Your task to perform on an android device: Show me popular videos on Youtube Image 0: 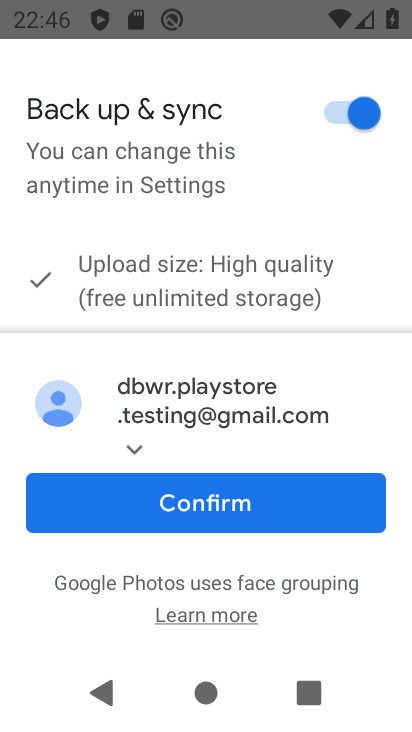
Step 0: press home button
Your task to perform on an android device: Show me popular videos on Youtube Image 1: 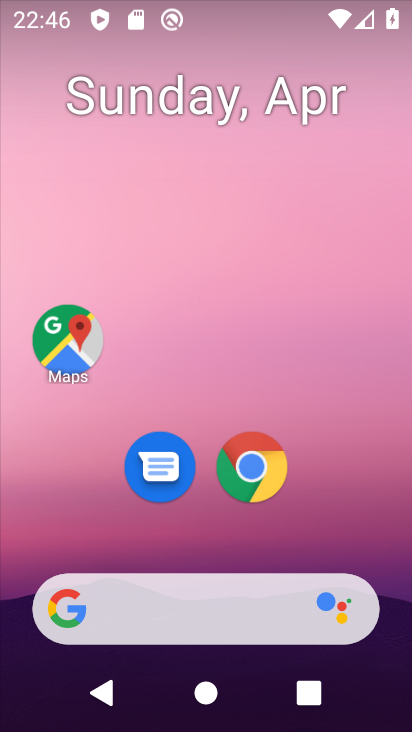
Step 1: drag from (359, 370) to (226, 370)
Your task to perform on an android device: Show me popular videos on Youtube Image 2: 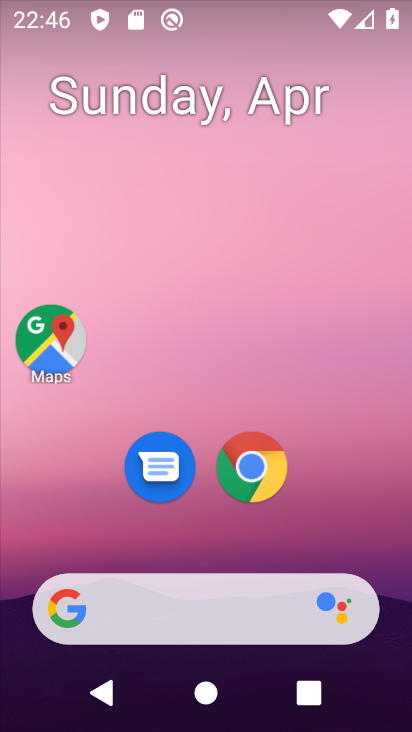
Step 2: drag from (199, 559) to (225, 96)
Your task to perform on an android device: Show me popular videos on Youtube Image 3: 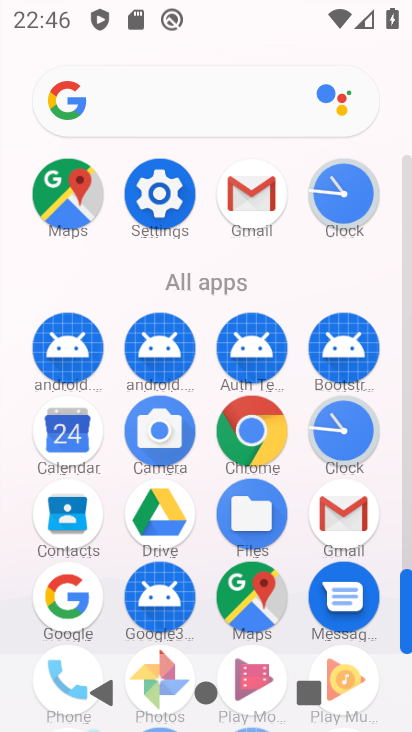
Step 3: drag from (211, 620) to (221, 250)
Your task to perform on an android device: Show me popular videos on Youtube Image 4: 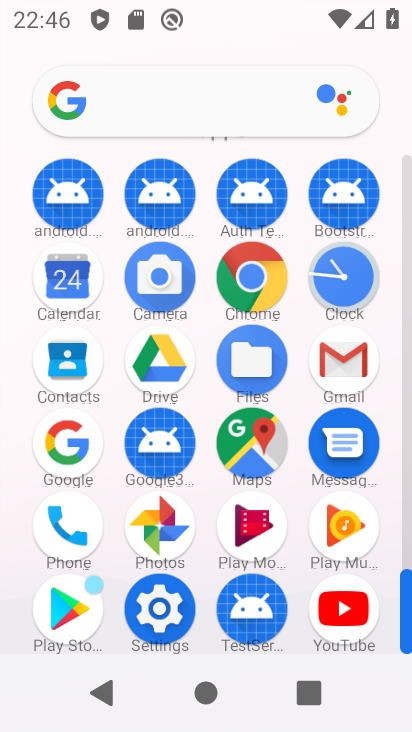
Step 4: click (345, 600)
Your task to perform on an android device: Show me popular videos on Youtube Image 5: 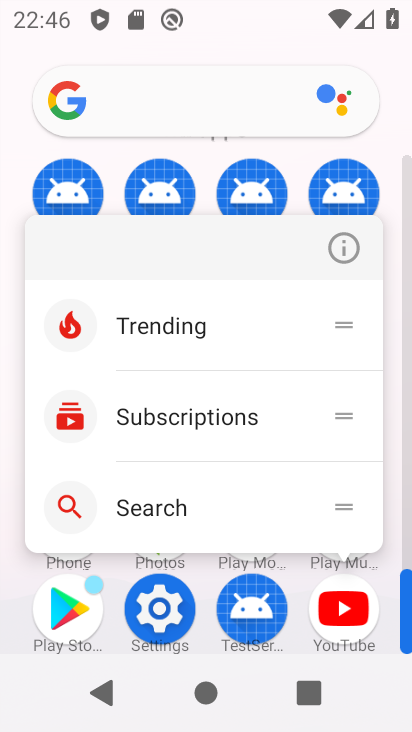
Step 5: click (354, 604)
Your task to perform on an android device: Show me popular videos on Youtube Image 6: 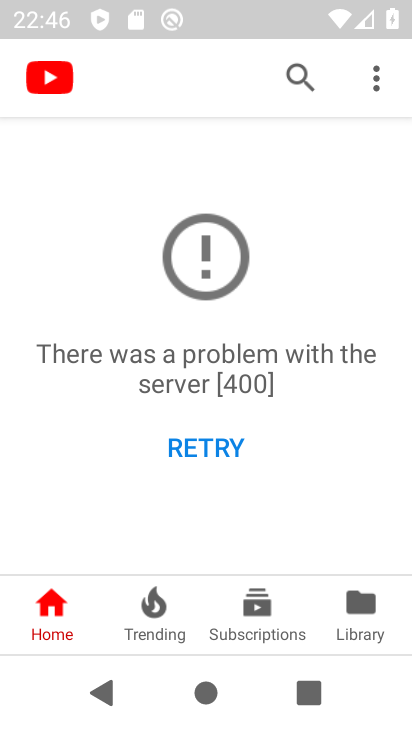
Step 6: click (155, 623)
Your task to perform on an android device: Show me popular videos on Youtube Image 7: 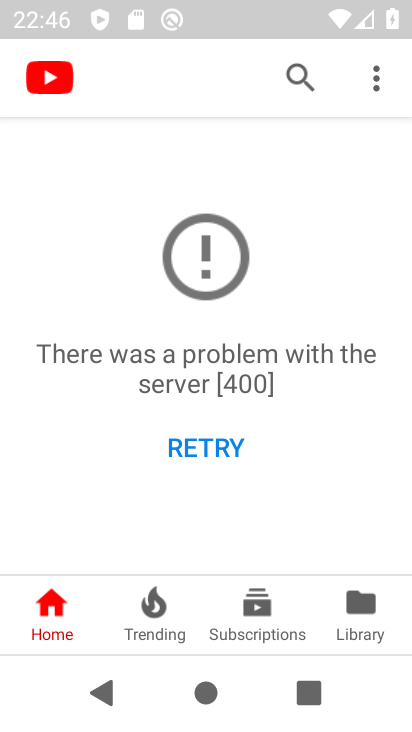
Step 7: click (154, 623)
Your task to perform on an android device: Show me popular videos on Youtube Image 8: 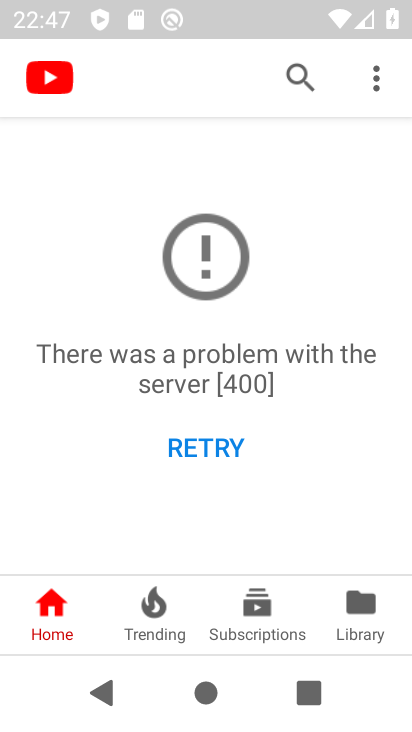
Step 8: task complete